Your task to perform on an android device: make emails show in primary in the gmail app Image 0: 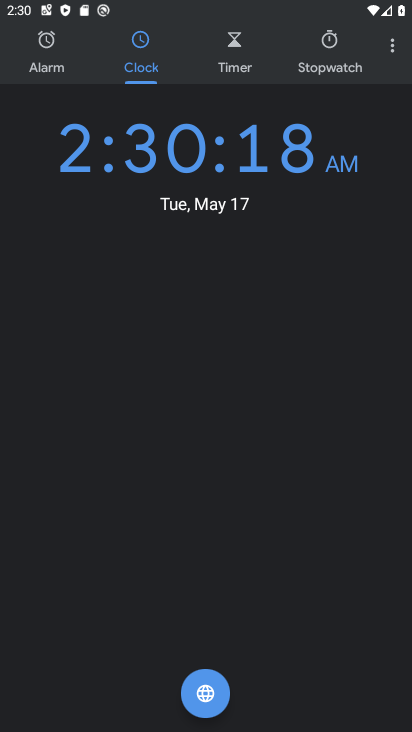
Step 0: press home button
Your task to perform on an android device: make emails show in primary in the gmail app Image 1: 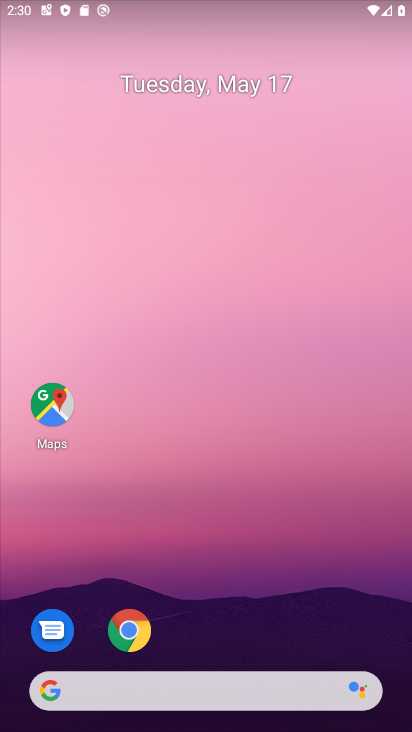
Step 1: drag from (170, 673) to (277, 342)
Your task to perform on an android device: make emails show in primary in the gmail app Image 2: 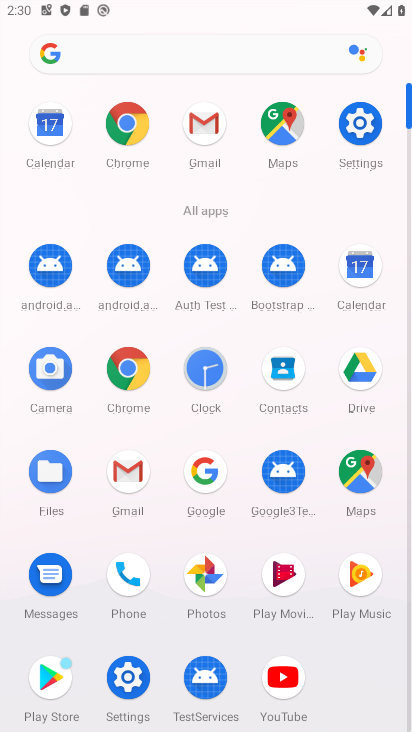
Step 2: click (127, 482)
Your task to perform on an android device: make emails show in primary in the gmail app Image 3: 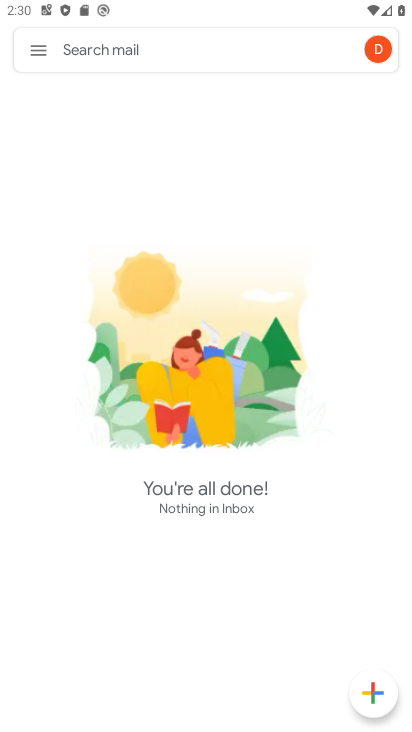
Step 3: click (44, 54)
Your task to perform on an android device: make emails show in primary in the gmail app Image 4: 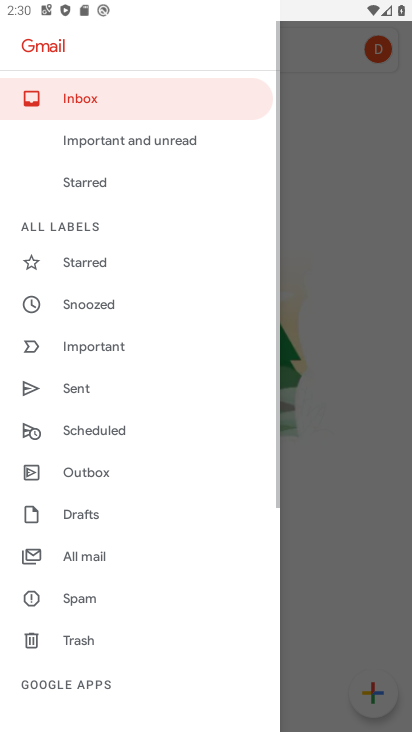
Step 4: drag from (76, 690) to (131, 315)
Your task to perform on an android device: make emails show in primary in the gmail app Image 5: 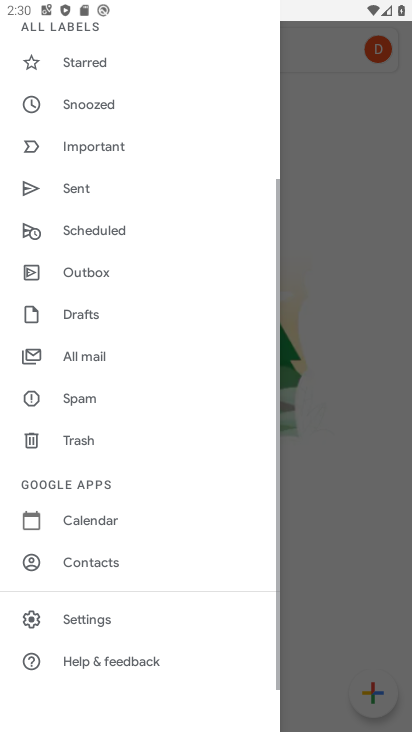
Step 5: click (91, 622)
Your task to perform on an android device: make emails show in primary in the gmail app Image 6: 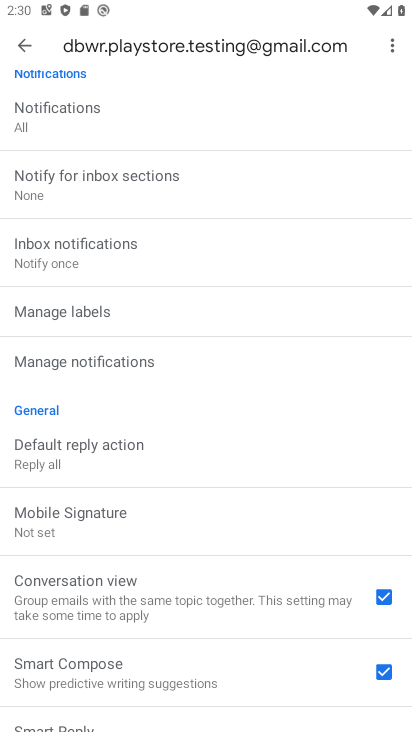
Step 6: drag from (112, 84) to (173, 452)
Your task to perform on an android device: make emails show in primary in the gmail app Image 7: 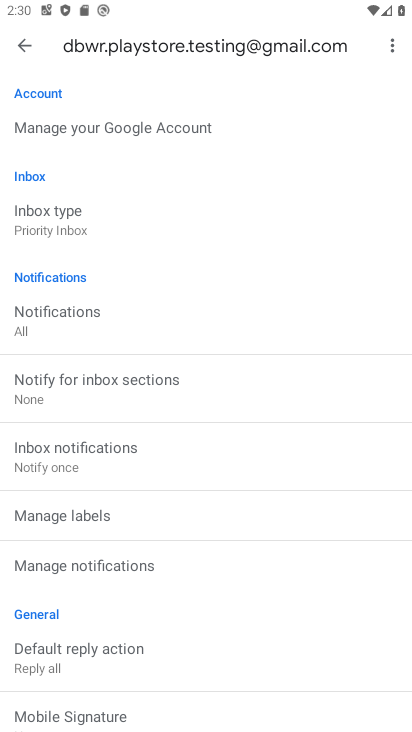
Step 7: click (35, 224)
Your task to perform on an android device: make emails show in primary in the gmail app Image 8: 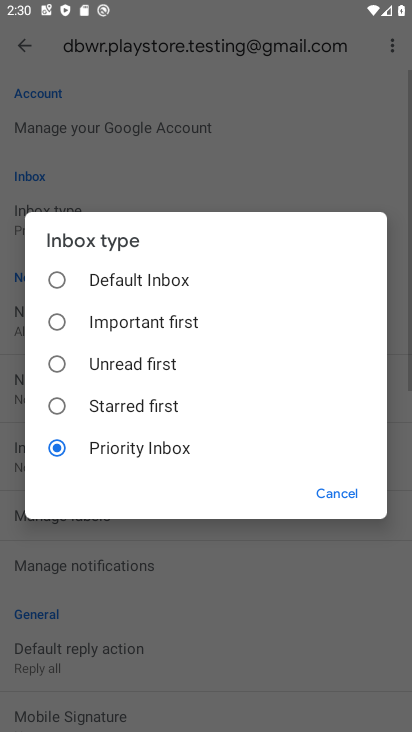
Step 8: click (95, 276)
Your task to perform on an android device: make emails show in primary in the gmail app Image 9: 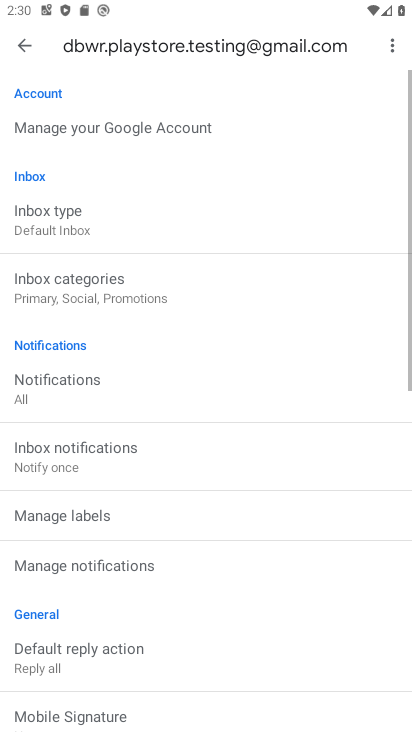
Step 9: click (93, 278)
Your task to perform on an android device: make emails show in primary in the gmail app Image 10: 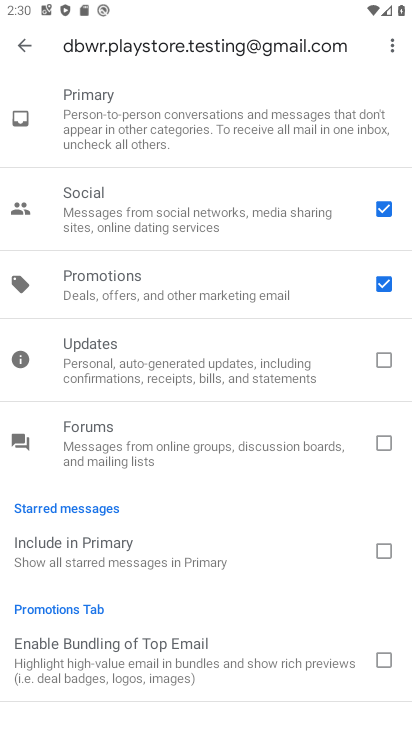
Step 10: click (381, 284)
Your task to perform on an android device: make emails show in primary in the gmail app Image 11: 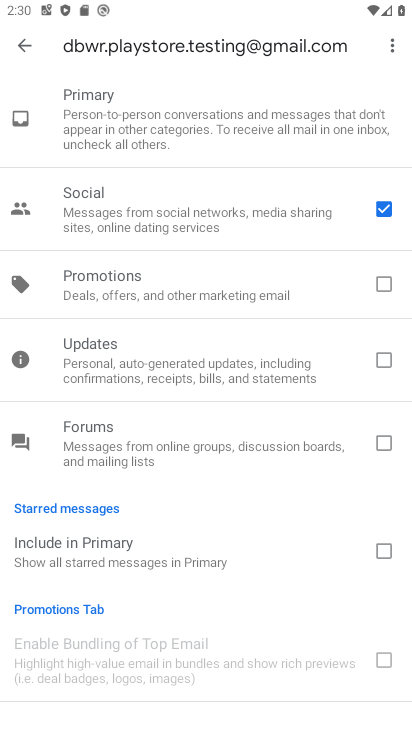
Step 11: click (386, 207)
Your task to perform on an android device: make emails show in primary in the gmail app Image 12: 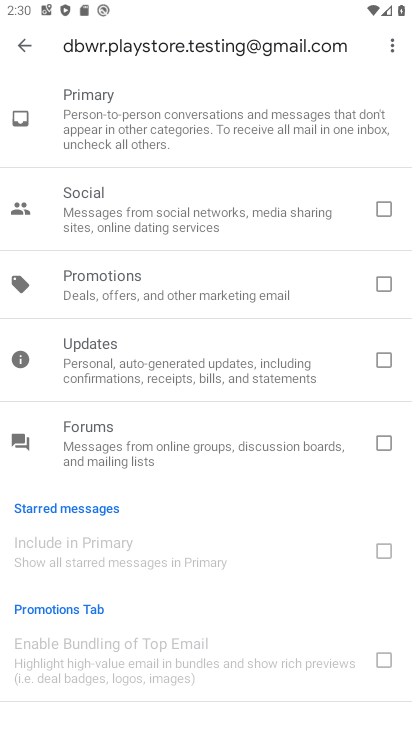
Step 12: click (15, 48)
Your task to perform on an android device: make emails show in primary in the gmail app Image 13: 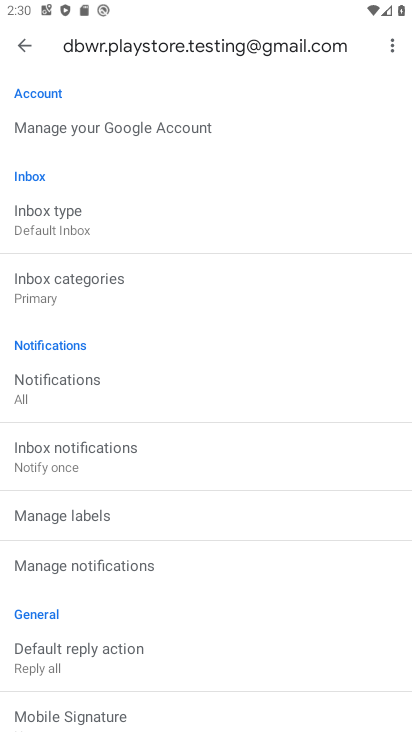
Step 13: task complete